Your task to perform on an android device: What's on my calendar tomorrow? Image 0: 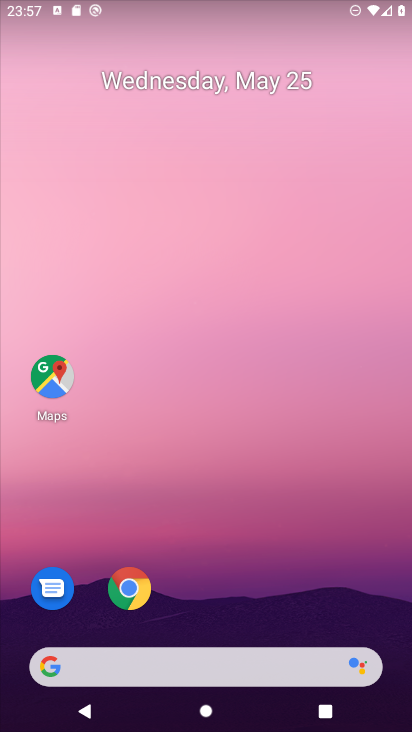
Step 0: drag from (45, 580) to (349, 93)
Your task to perform on an android device: What's on my calendar tomorrow? Image 1: 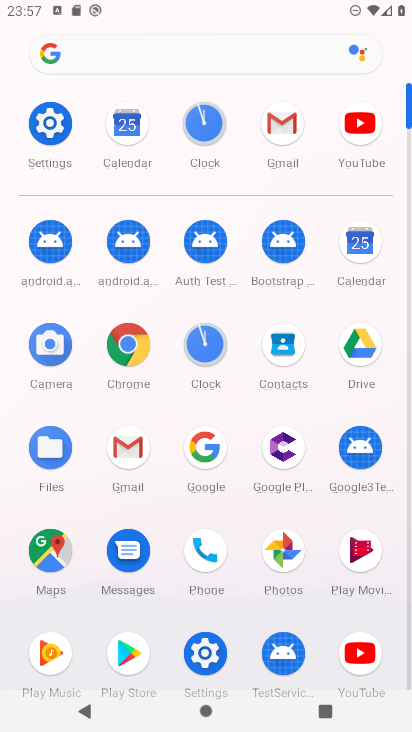
Step 1: click (378, 257)
Your task to perform on an android device: What's on my calendar tomorrow? Image 2: 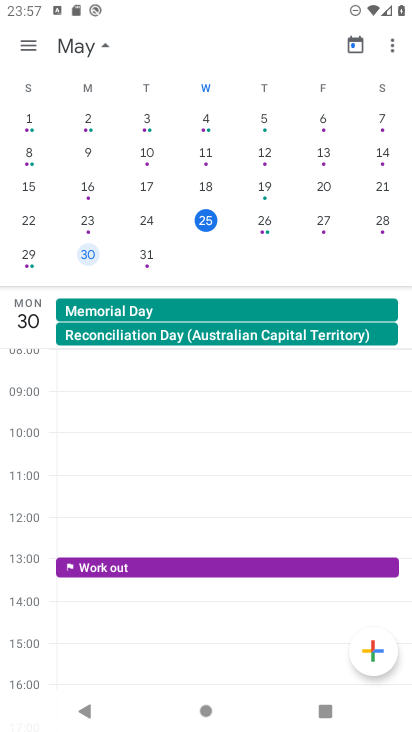
Step 2: click (263, 232)
Your task to perform on an android device: What's on my calendar tomorrow? Image 3: 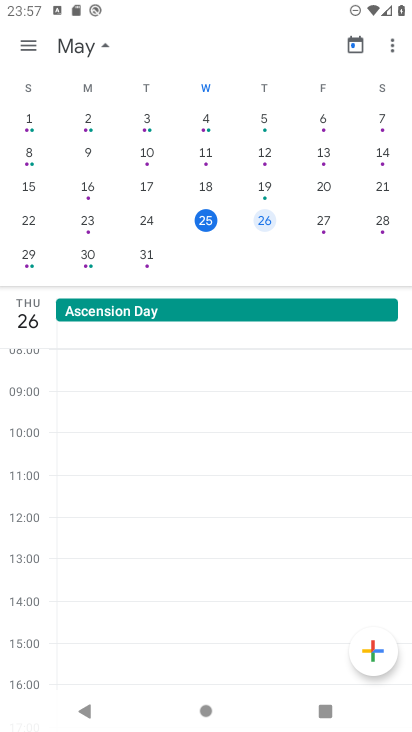
Step 3: click (268, 219)
Your task to perform on an android device: What's on my calendar tomorrow? Image 4: 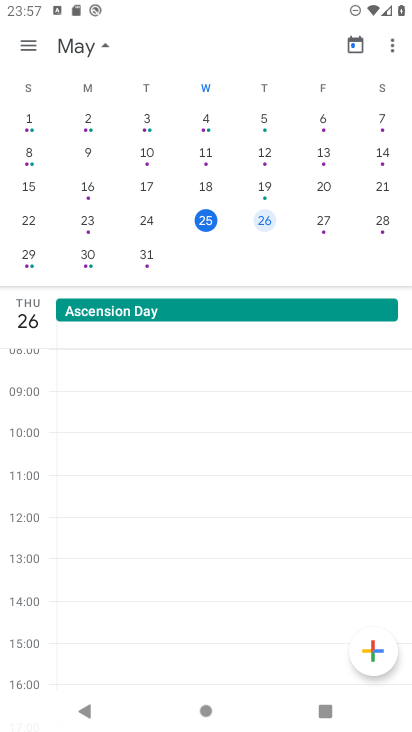
Step 4: click (341, 213)
Your task to perform on an android device: What's on my calendar tomorrow? Image 5: 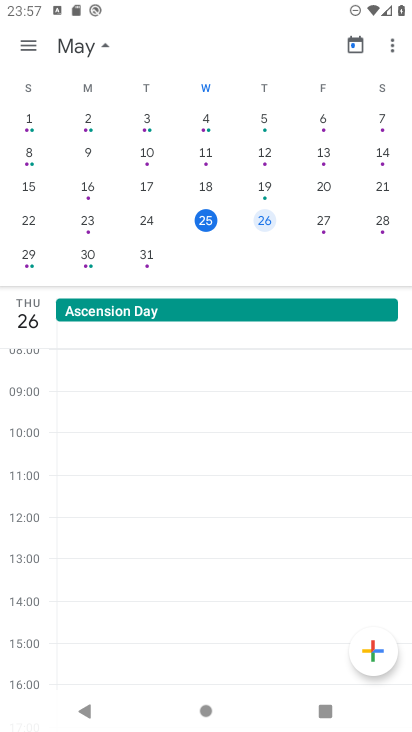
Step 5: click (323, 218)
Your task to perform on an android device: What's on my calendar tomorrow? Image 6: 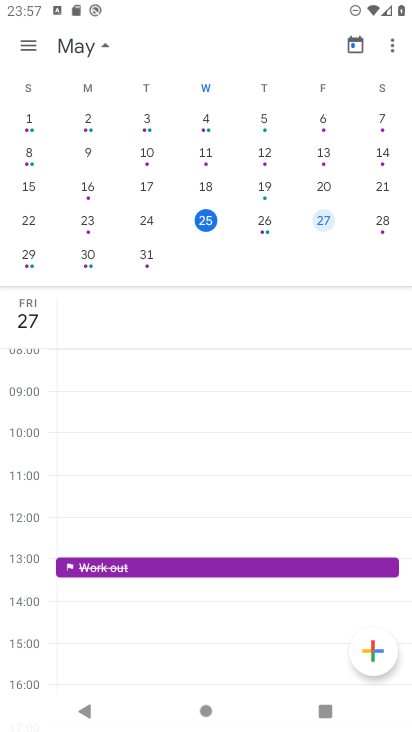
Step 6: task complete